Your task to perform on an android device: Go to location settings Image 0: 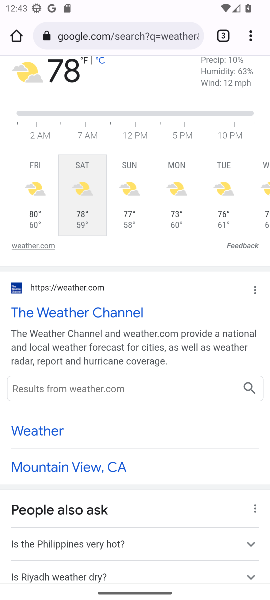
Step 0: press home button
Your task to perform on an android device: Go to location settings Image 1: 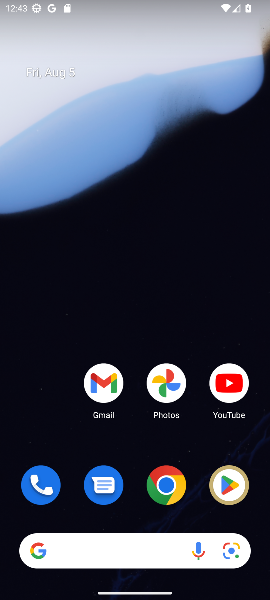
Step 1: drag from (59, 443) to (139, 91)
Your task to perform on an android device: Go to location settings Image 2: 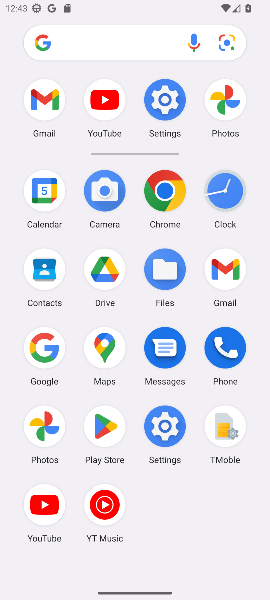
Step 2: click (168, 98)
Your task to perform on an android device: Go to location settings Image 3: 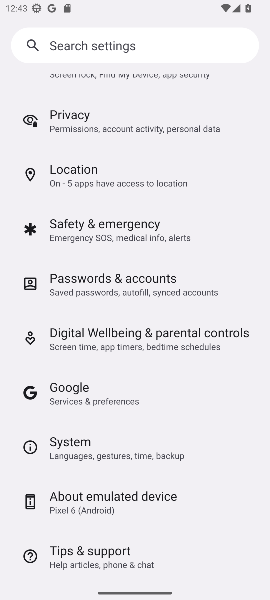
Step 3: drag from (163, 508) to (171, 221)
Your task to perform on an android device: Go to location settings Image 4: 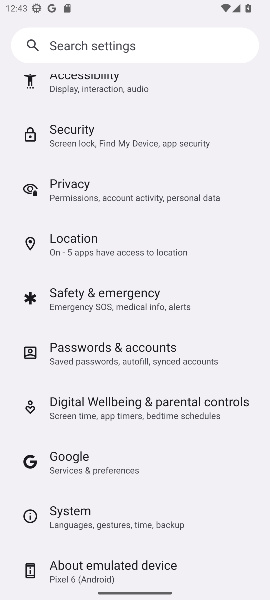
Step 4: click (74, 232)
Your task to perform on an android device: Go to location settings Image 5: 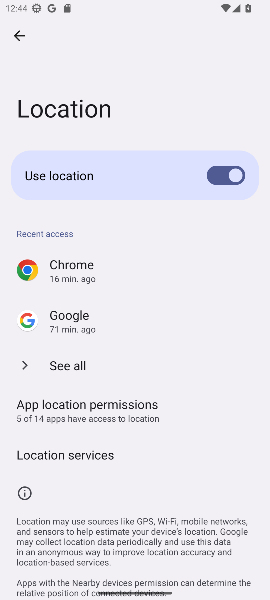
Step 5: task complete